Your task to perform on an android device: Open Chrome and go to the settings page Image 0: 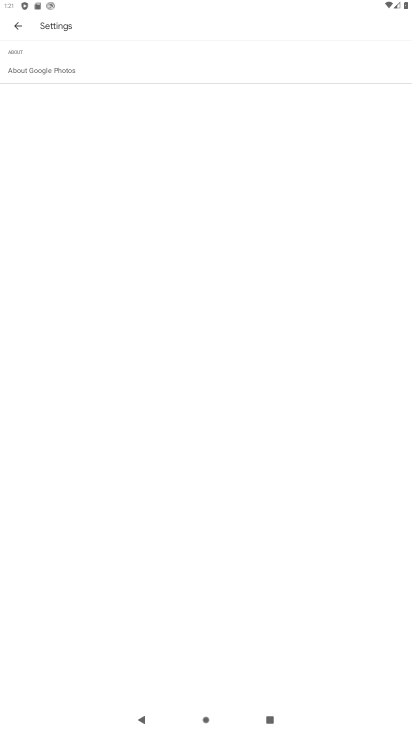
Step 0: press home button
Your task to perform on an android device: Open Chrome and go to the settings page Image 1: 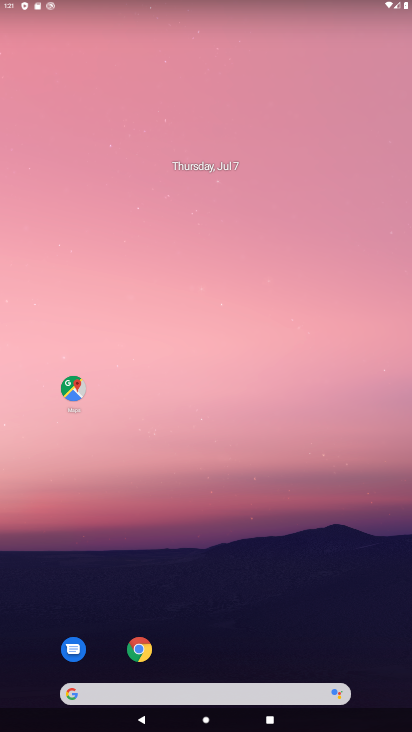
Step 1: click (135, 642)
Your task to perform on an android device: Open Chrome and go to the settings page Image 2: 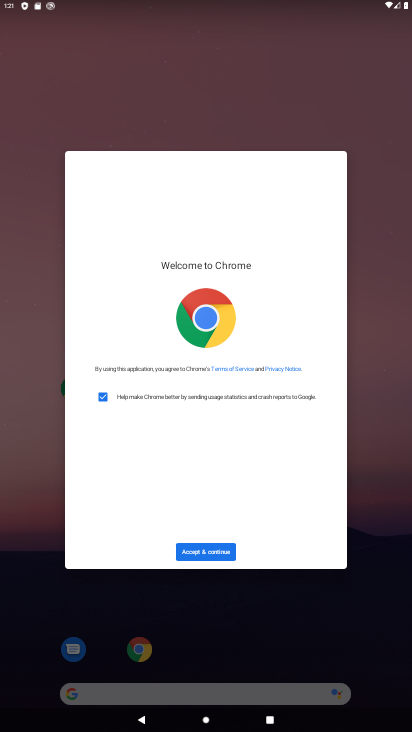
Step 2: click (210, 550)
Your task to perform on an android device: Open Chrome and go to the settings page Image 3: 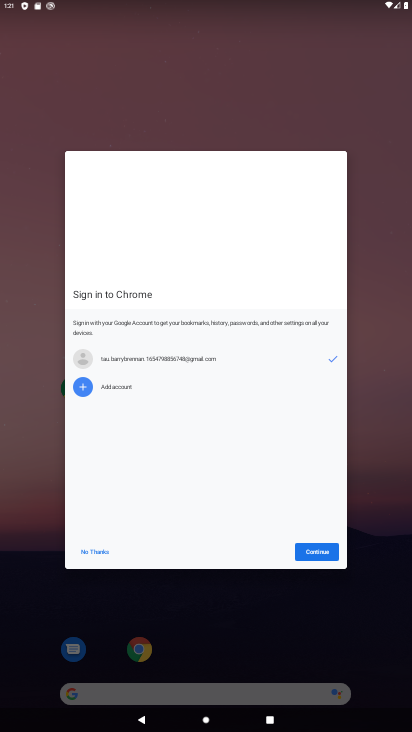
Step 3: click (319, 543)
Your task to perform on an android device: Open Chrome and go to the settings page Image 4: 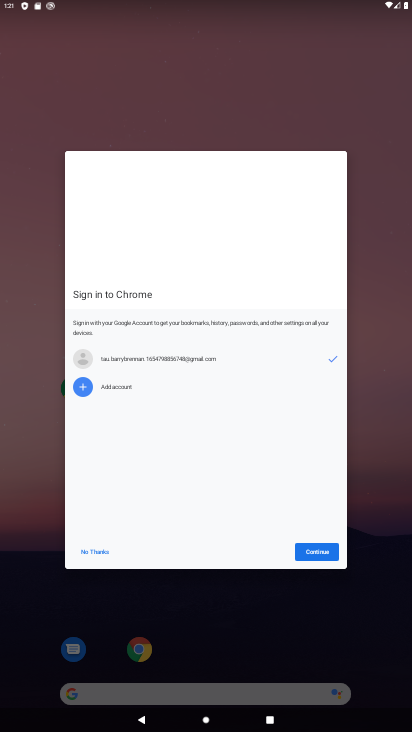
Step 4: click (314, 543)
Your task to perform on an android device: Open Chrome and go to the settings page Image 5: 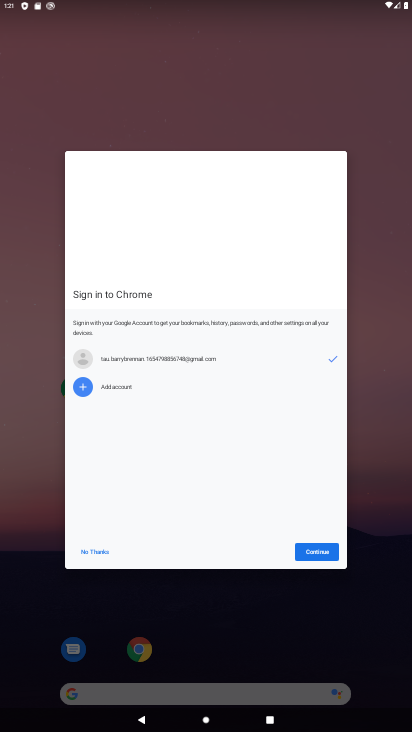
Step 5: click (314, 551)
Your task to perform on an android device: Open Chrome and go to the settings page Image 6: 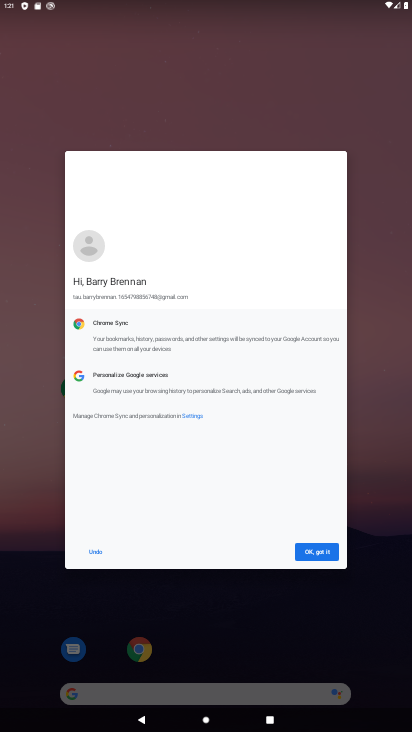
Step 6: click (309, 556)
Your task to perform on an android device: Open Chrome and go to the settings page Image 7: 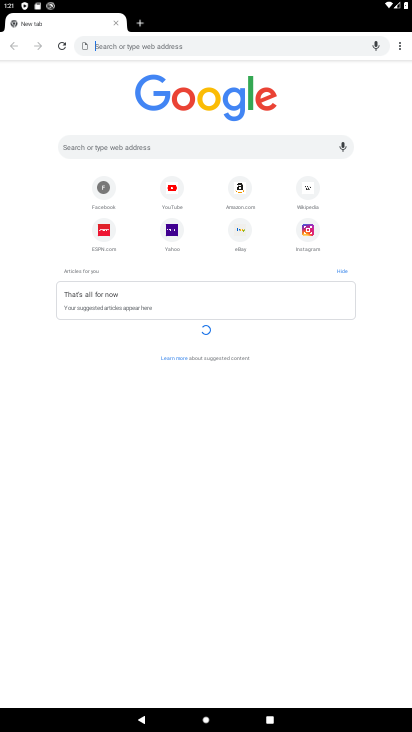
Step 7: click (394, 44)
Your task to perform on an android device: Open Chrome and go to the settings page Image 8: 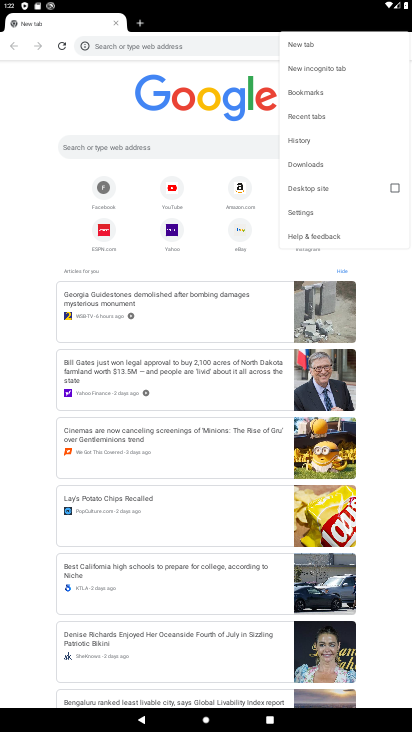
Step 8: click (303, 209)
Your task to perform on an android device: Open Chrome and go to the settings page Image 9: 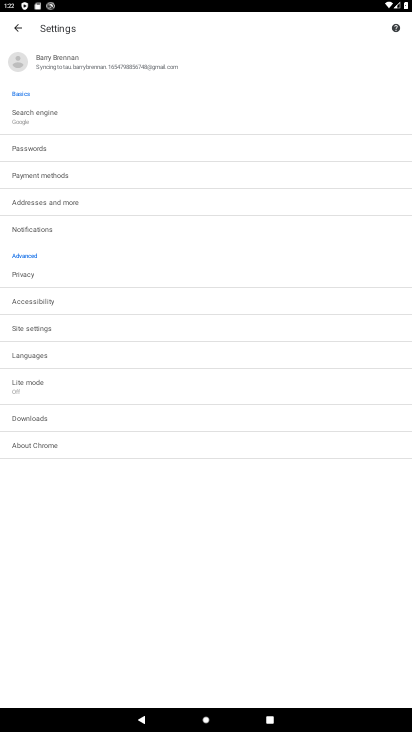
Step 9: task complete